Your task to perform on an android device: refresh tabs in the chrome app Image 0: 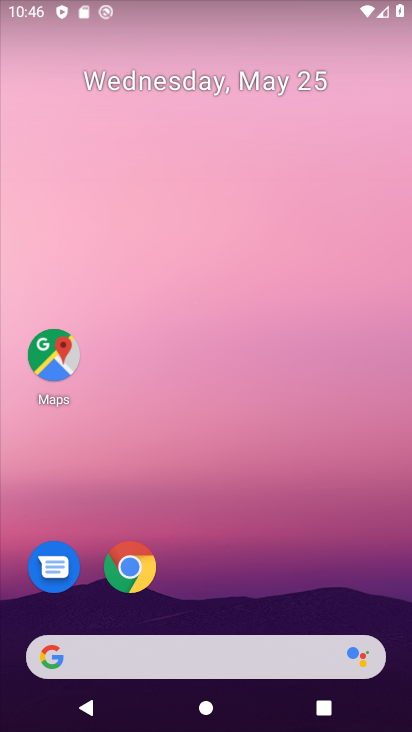
Step 0: drag from (201, 591) to (143, 93)
Your task to perform on an android device: refresh tabs in the chrome app Image 1: 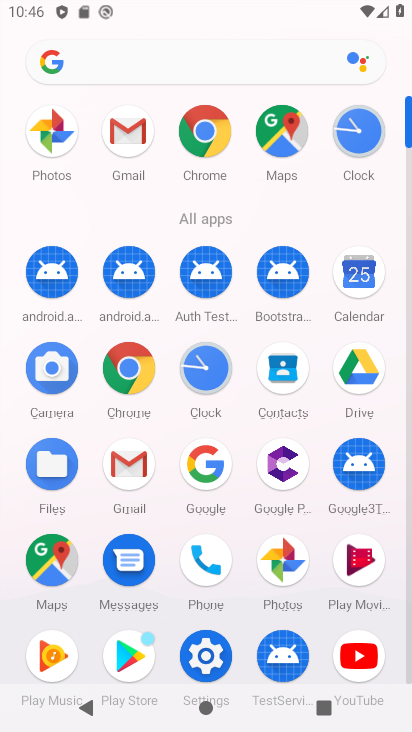
Step 1: click (128, 380)
Your task to perform on an android device: refresh tabs in the chrome app Image 2: 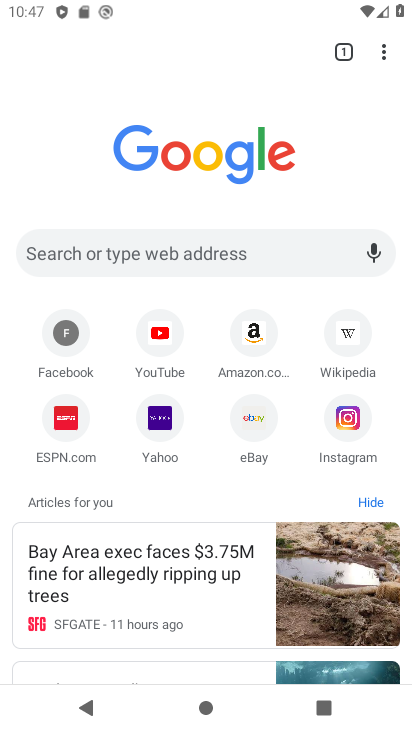
Step 2: click (383, 53)
Your task to perform on an android device: refresh tabs in the chrome app Image 3: 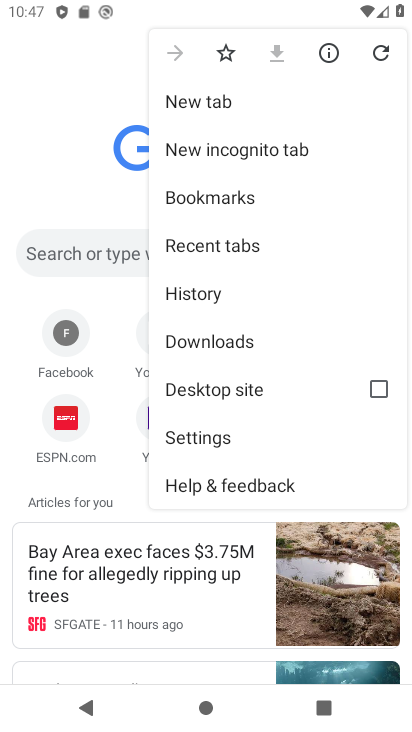
Step 3: click (383, 53)
Your task to perform on an android device: refresh tabs in the chrome app Image 4: 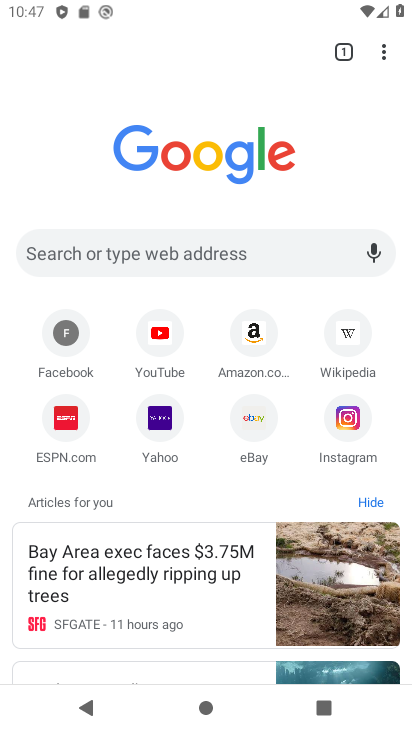
Step 4: click (387, 44)
Your task to perform on an android device: refresh tabs in the chrome app Image 5: 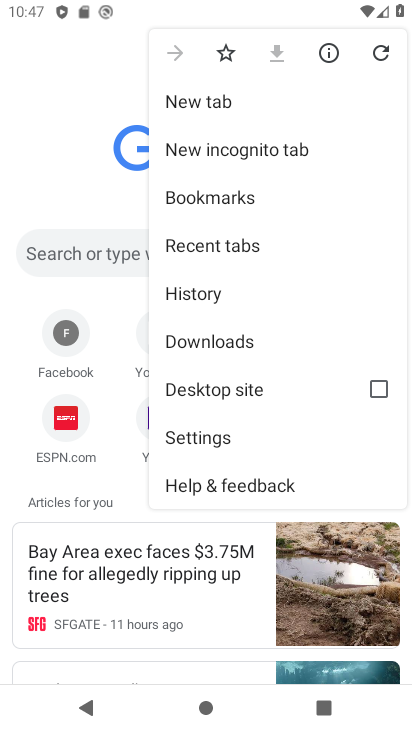
Step 5: click (387, 44)
Your task to perform on an android device: refresh tabs in the chrome app Image 6: 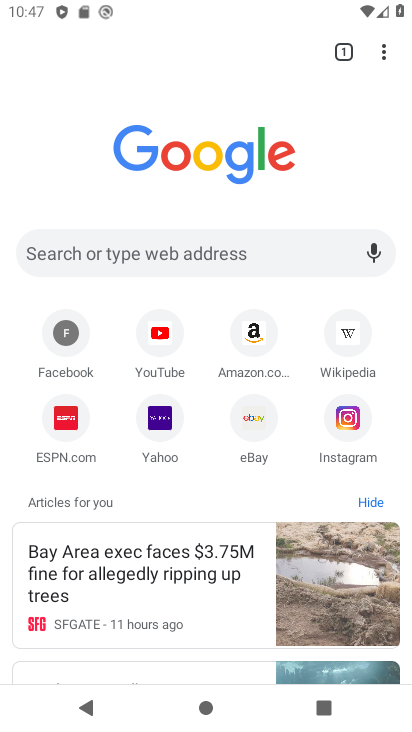
Step 6: click (387, 44)
Your task to perform on an android device: refresh tabs in the chrome app Image 7: 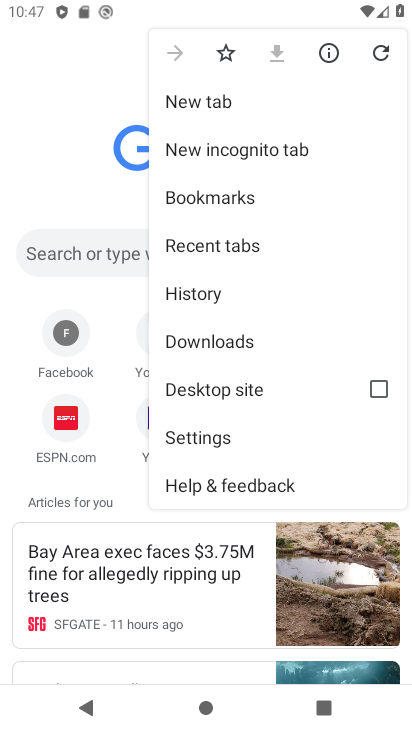
Step 7: click (385, 45)
Your task to perform on an android device: refresh tabs in the chrome app Image 8: 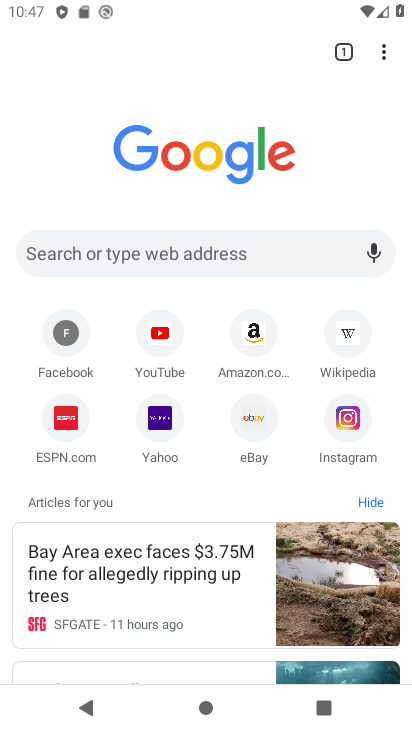
Step 8: task complete